Your task to perform on an android device: set the timer Image 0: 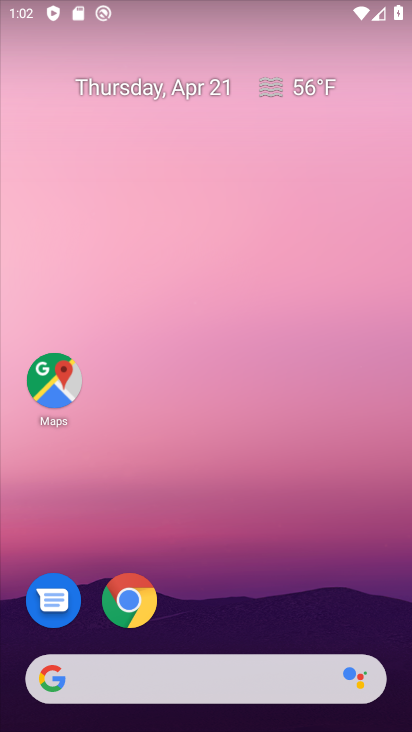
Step 0: drag from (353, 443) to (339, 273)
Your task to perform on an android device: set the timer Image 1: 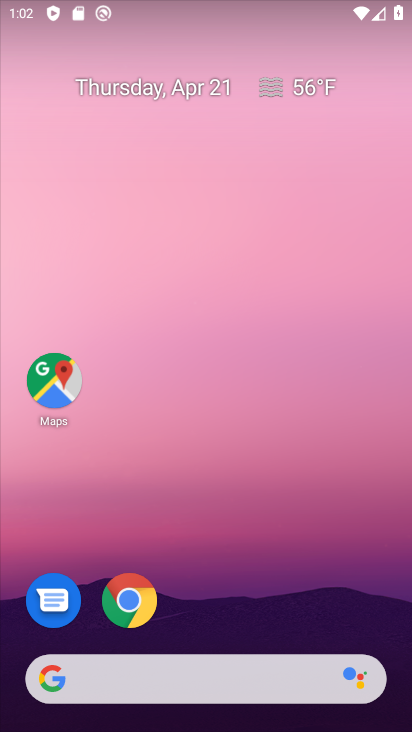
Step 1: drag from (386, 526) to (384, 332)
Your task to perform on an android device: set the timer Image 2: 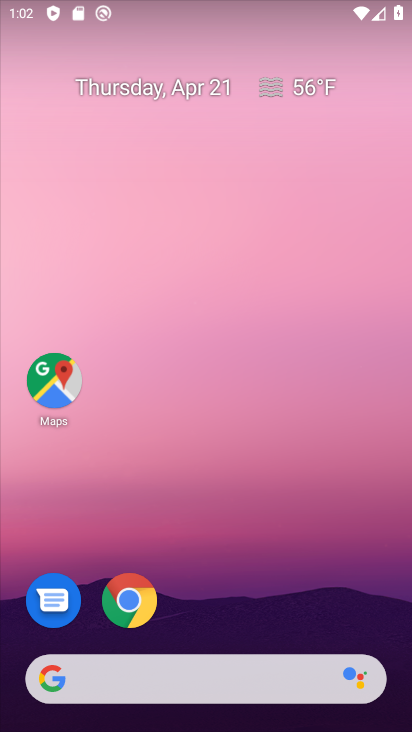
Step 2: drag from (390, 582) to (353, 244)
Your task to perform on an android device: set the timer Image 3: 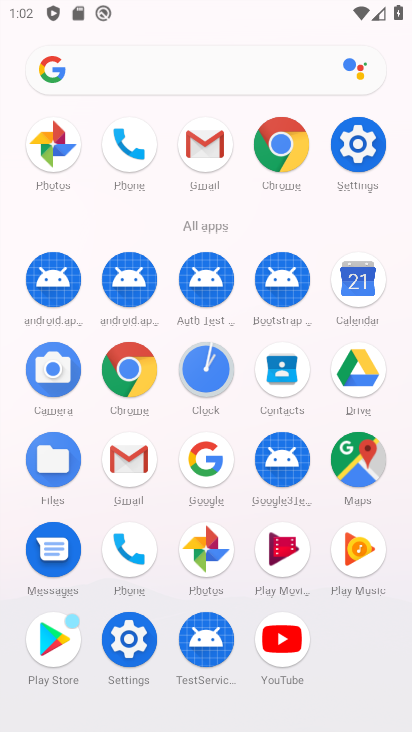
Step 3: click (209, 374)
Your task to perform on an android device: set the timer Image 4: 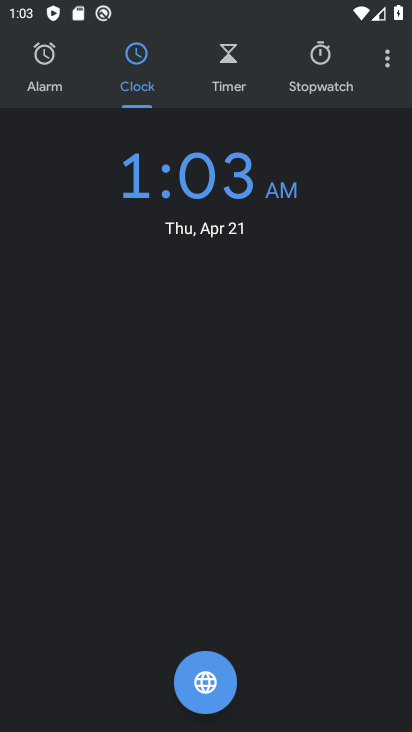
Step 4: click (315, 60)
Your task to perform on an android device: set the timer Image 5: 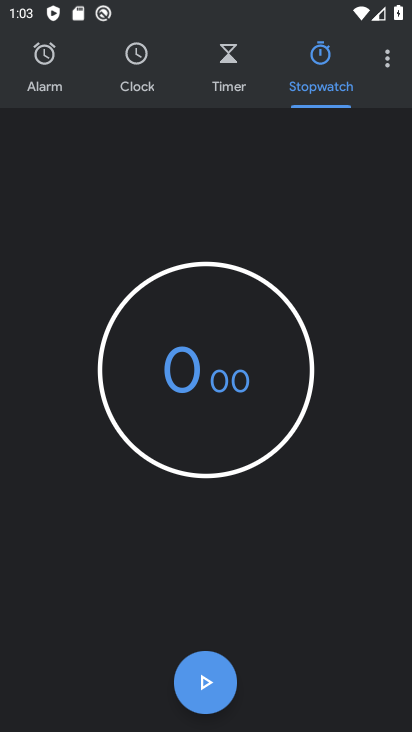
Step 5: click (189, 679)
Your task to perform on an android device: set the timer Image 6: 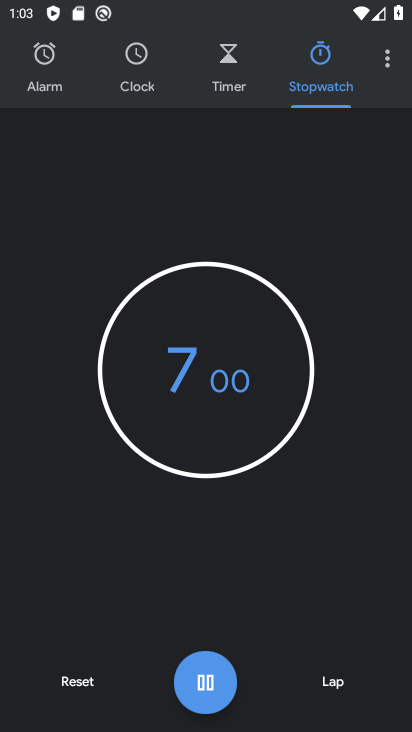
Step 6: task complete